Your task to perform on an android device: What's on my calendar today? Image 0: 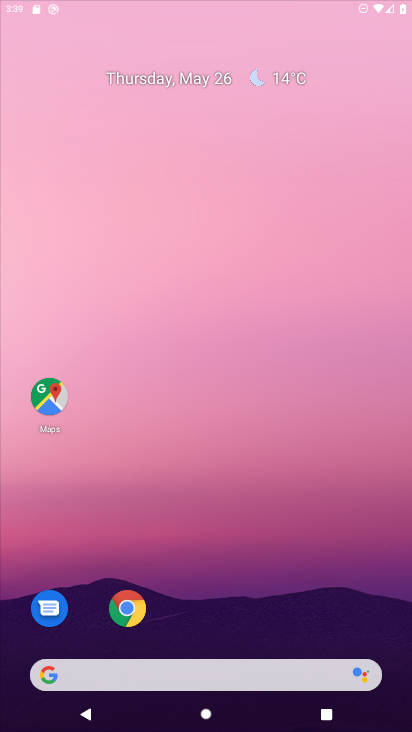
Step 0: drag from (278, 573) to (341, 91)
Your task to perform on an android device: What's on my calendar today? Image 1: 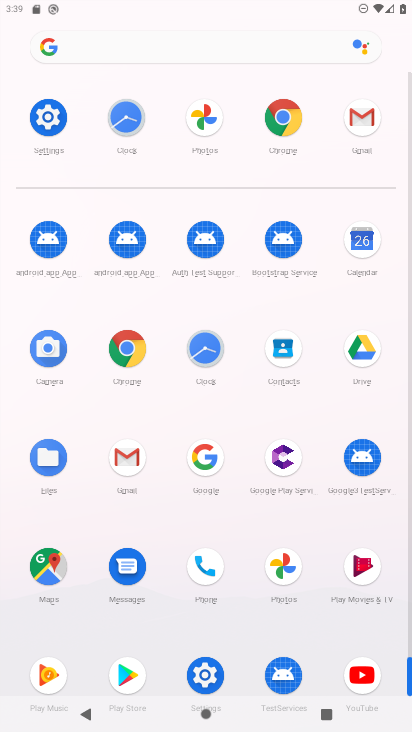
Step 1: click (356, 234)
Your task to perform on an android device: What's on my calendar today? Image 2: 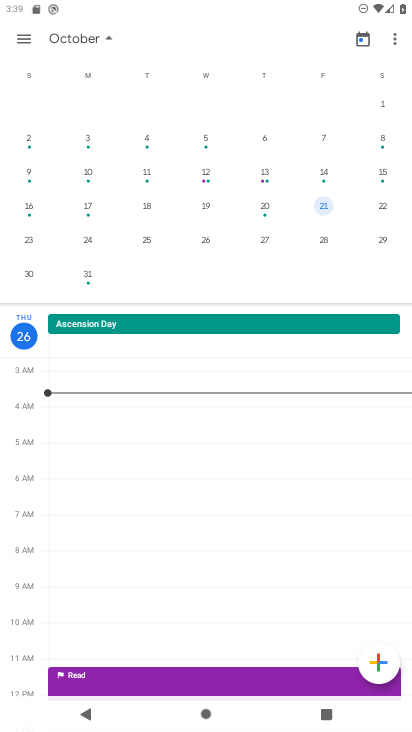
Step 2: task complete